Your task to perform on an android device: Add apple airpods pro to the cart on newegg.com, then select checkout. Image 0: 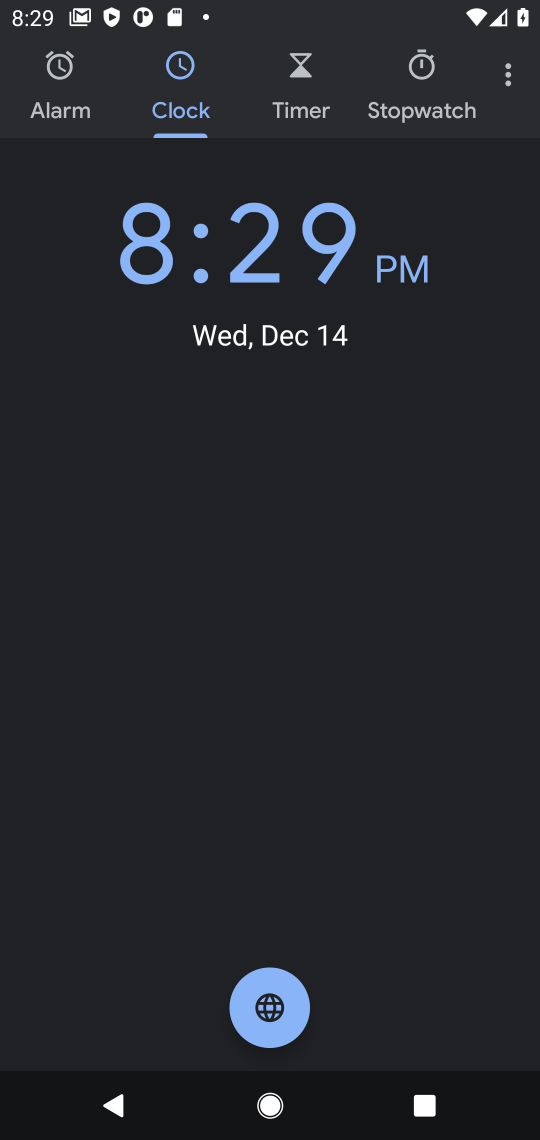
Step 0: press home button
Your task to perform on an android device: Add apple airpods pro to the cart on newegg.com, then select checkout. Image 1: 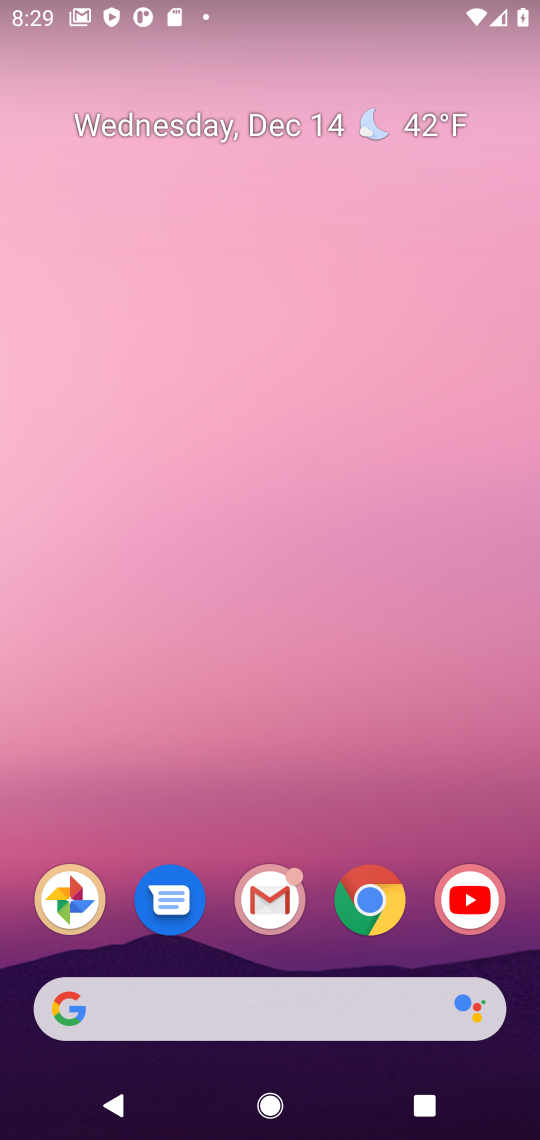
Step 1: click (377, 912)
Your task to perform on an android device: Add apple airpods pro to the cart on newegg.com, then select checkout. Image 2: 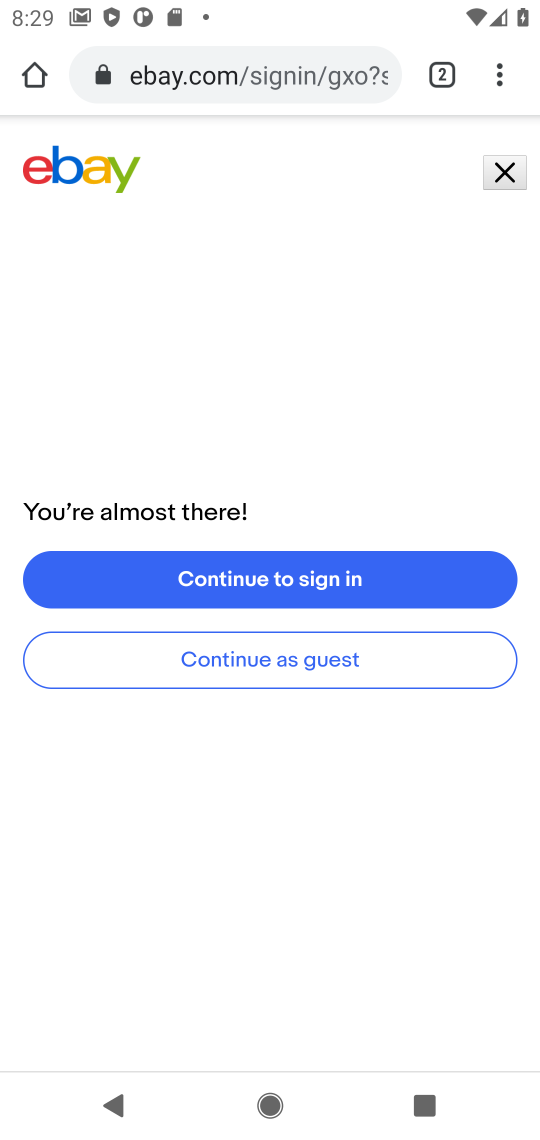
Step 2: click (310, 76)
Your task to perform on an android device: Add apple airpods pro to the cart on newegg.com, then select checkout. Image 3: 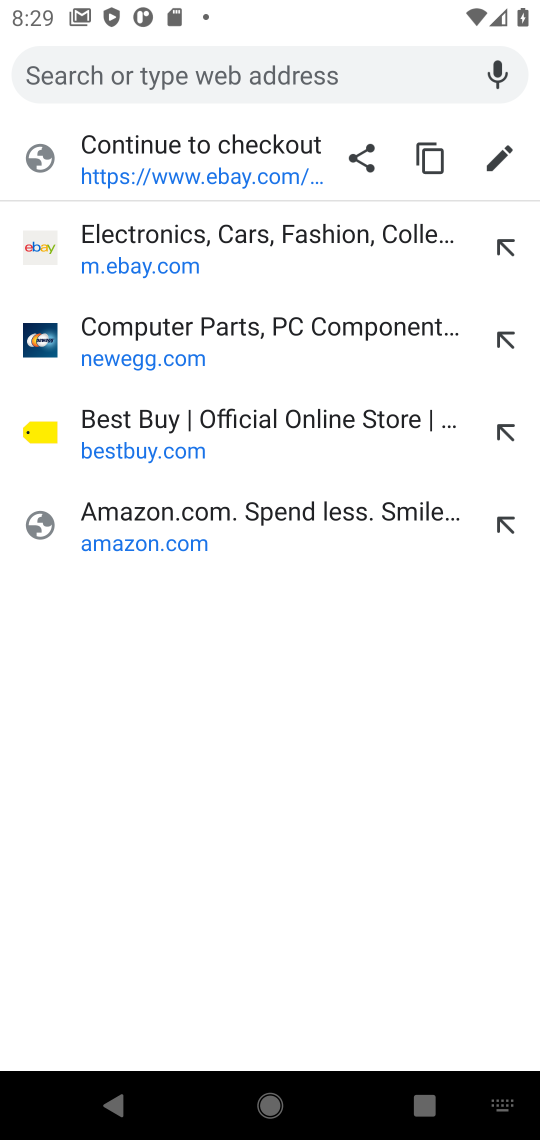
Step 3: click (129, 354)
Your task to perform on an android device: Add apple airpods pro to the cart on newegg.com, then select checkout. Image 4: 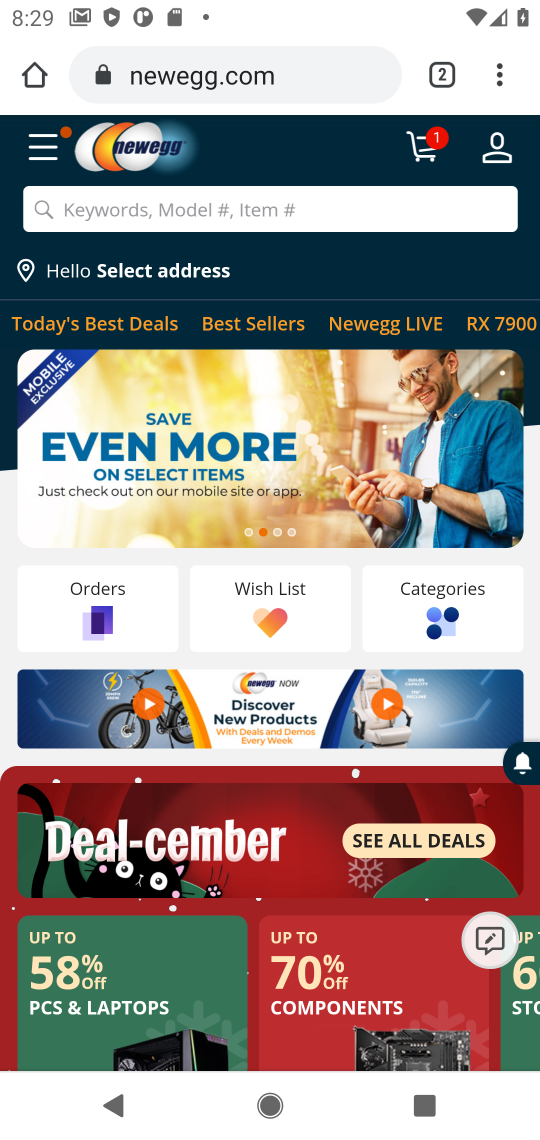
Step 4: click (348, 214)
Your task to perform on an android device: Add apple airpods pro to the cart on newegg.com, then select checkout. Image 5: 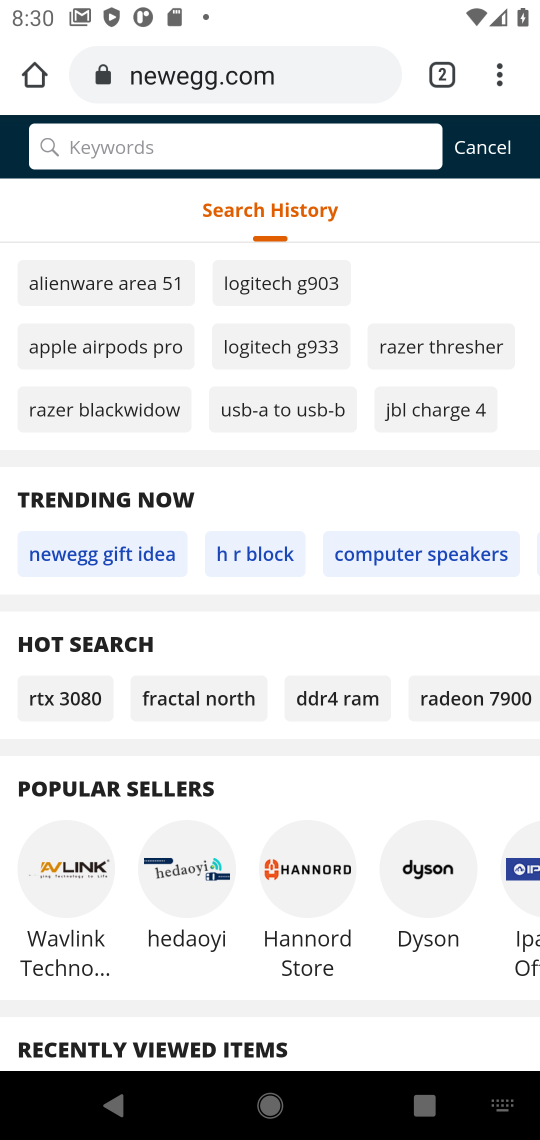
Step 5: type "apple airpod pro"
Your task to perform on an android device: Add apple airpods pro to the cart on newegg.com, then select checkout. Image 6: 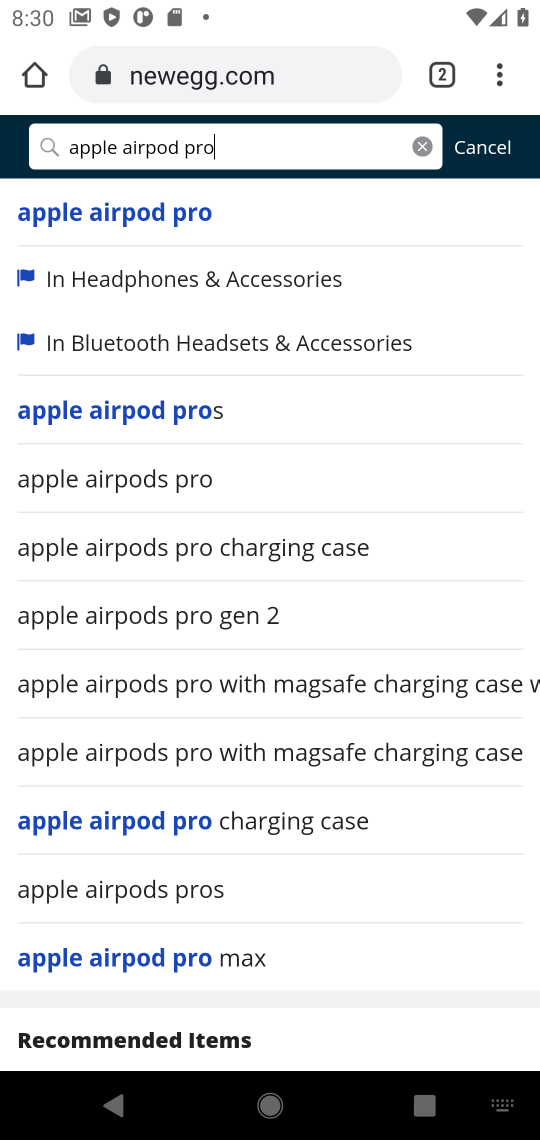
Step 6: click (104, 215)
Your task to perform on an android device: Add apple airpods pro to the cart on newegg.com, then select checkout. Image 7: 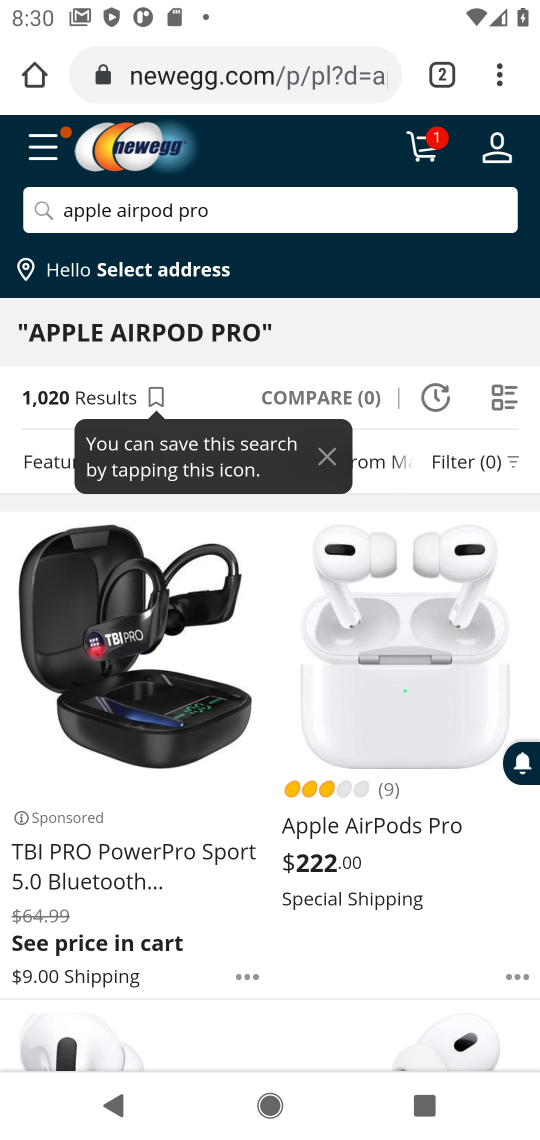
Step 7: click (371, 701)
Your task to perform on an android device: Add apple airpods pro to the cart on newegg.com, then select checkout. Image 8: 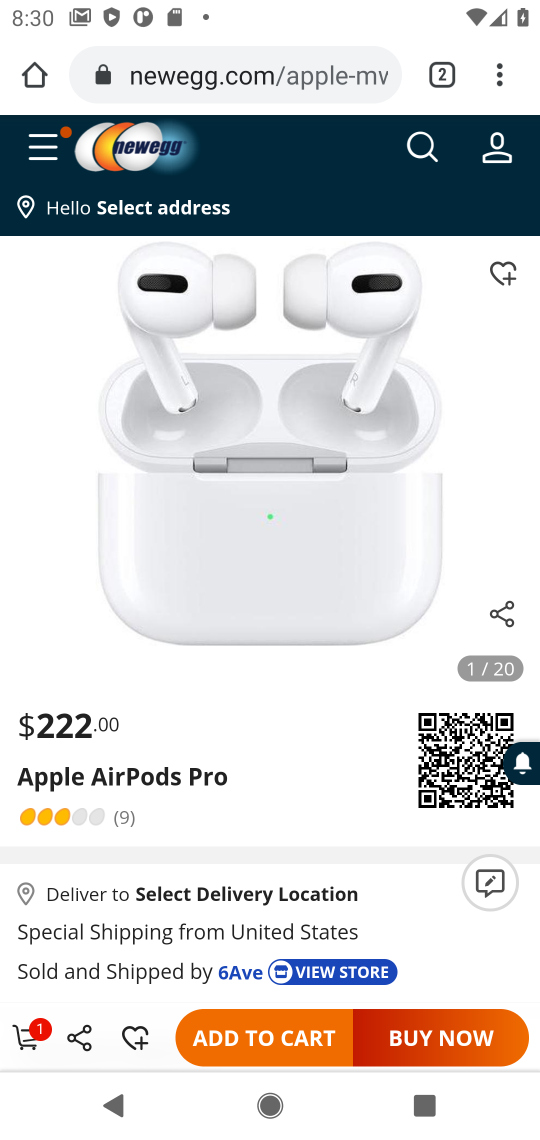
Step 8: click (274, 1048)
Your task to perform on an android device: Add apple airpods pro to the cart on newegg.com, then select checkout. Image 9: 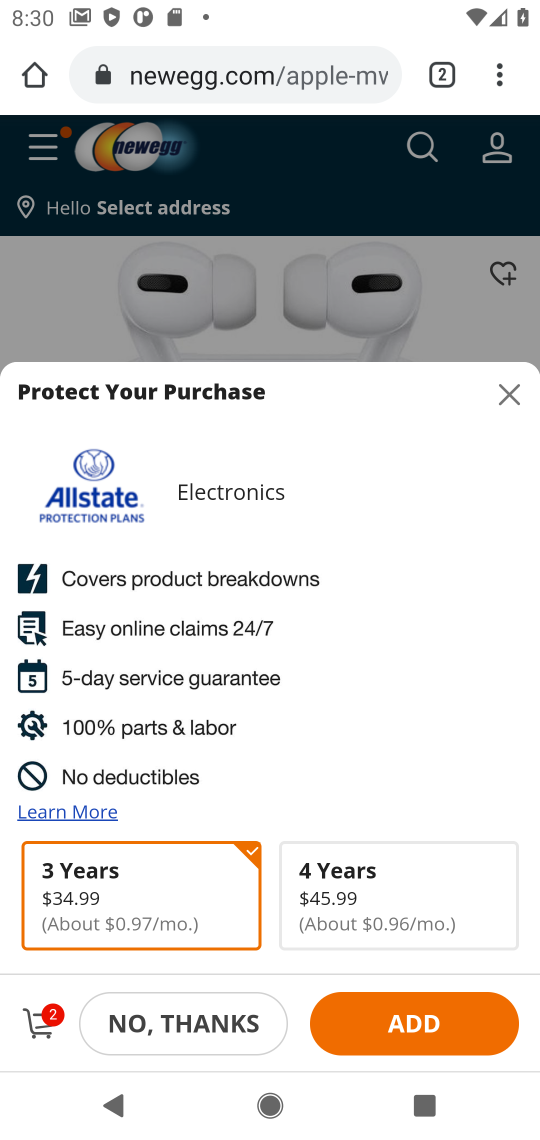
Step 9: drag from (438, 752) to (475, 506)
Your task to perform on an android device: Add apple airpods pro to the cart on newegg.com, then select checkout. Image 10: 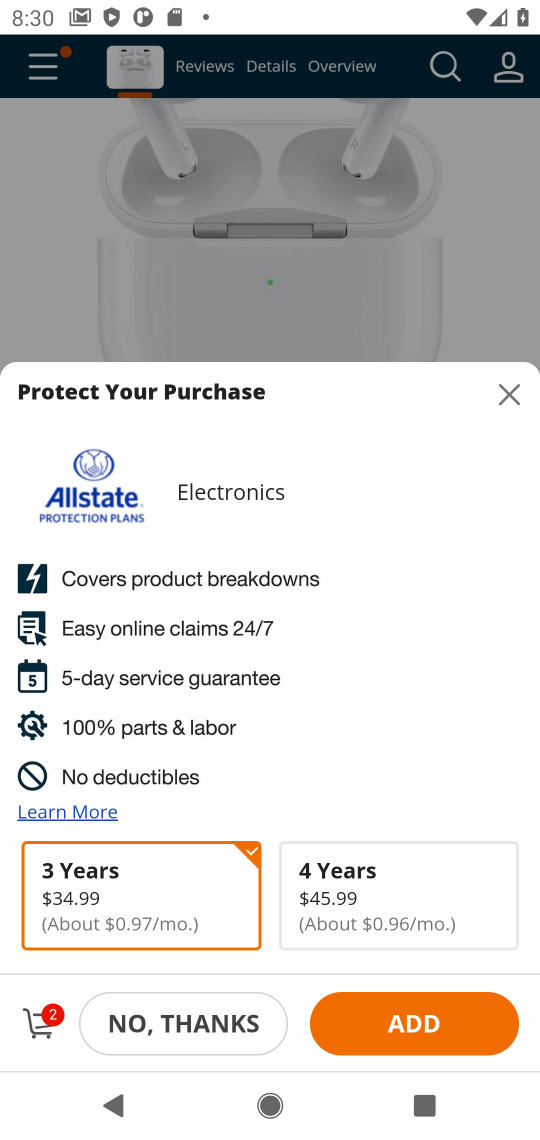
Step 10: drag from (357, 772) to (380, 405)
Your task to perform on an android device: Add apple airpods pro to the cart on newegg.com, then select checkout. Image 11: 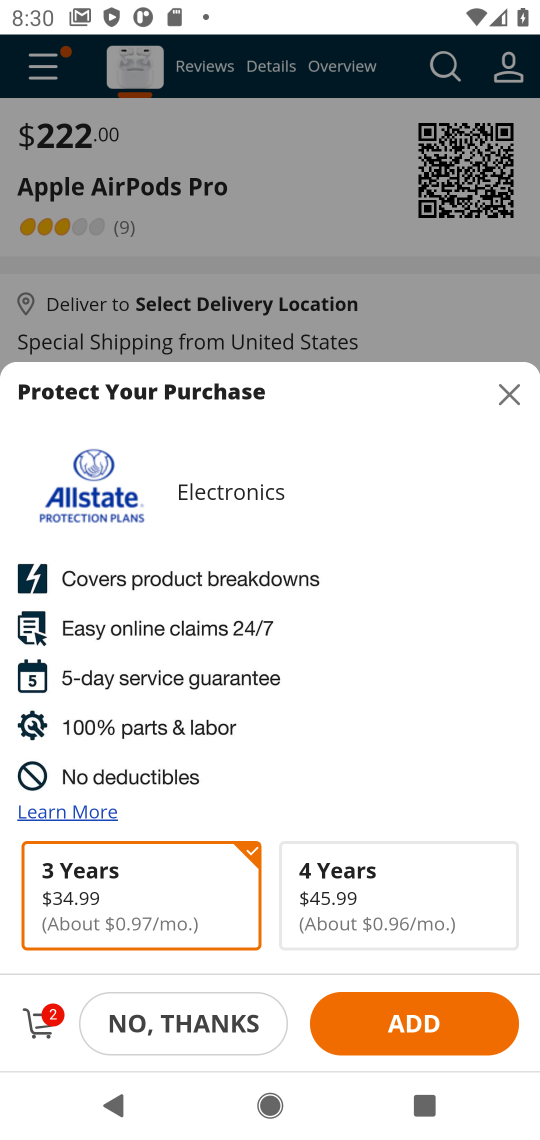
Step 11: click (406, 1019)
Your task to perform on an android device: Add apple airpods pro to the cart on newegg.com, then select checkout. Image 12: 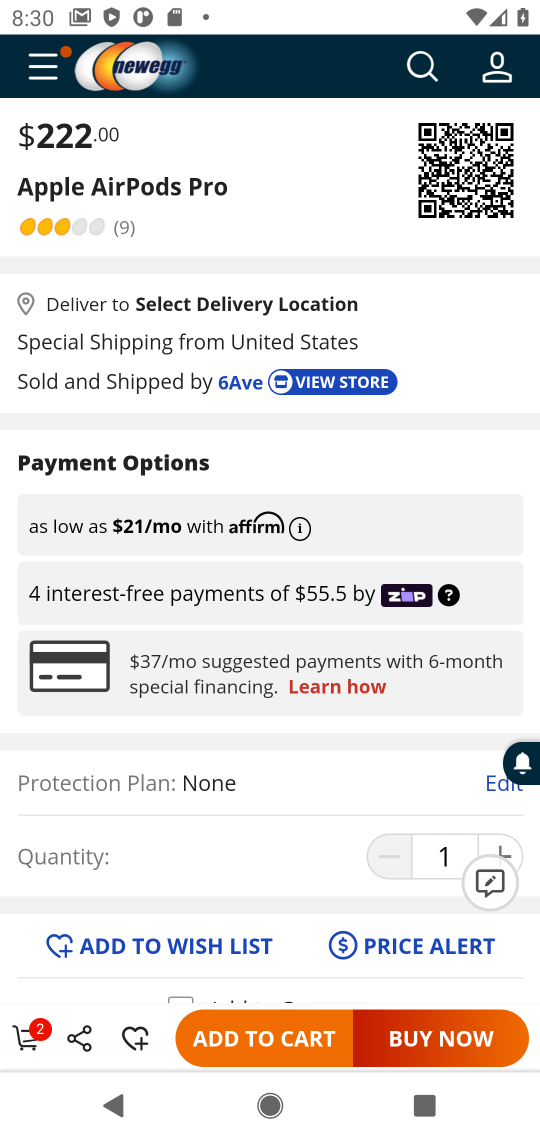
Step 12: click (36, 1044)
Your task to perform on an android device: Add apple airpods pro to the cart on newegg.com, then select checkout. Image 13: 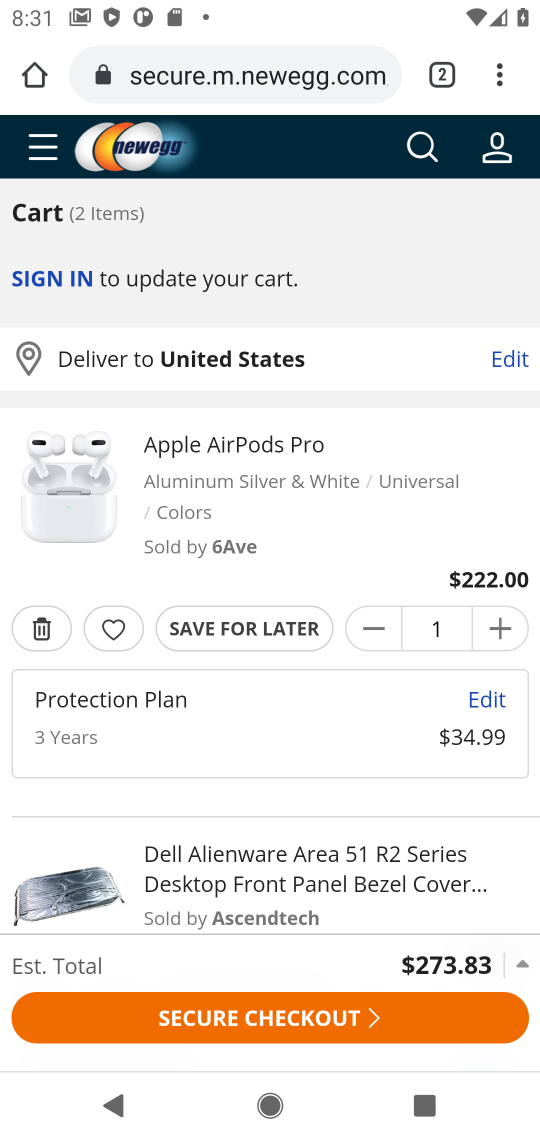
Step 13: click (319, 1025)
Your task to perform on an android device: Add apple airpods pro to the cart on newegg.com, then select checkout. Image 14: 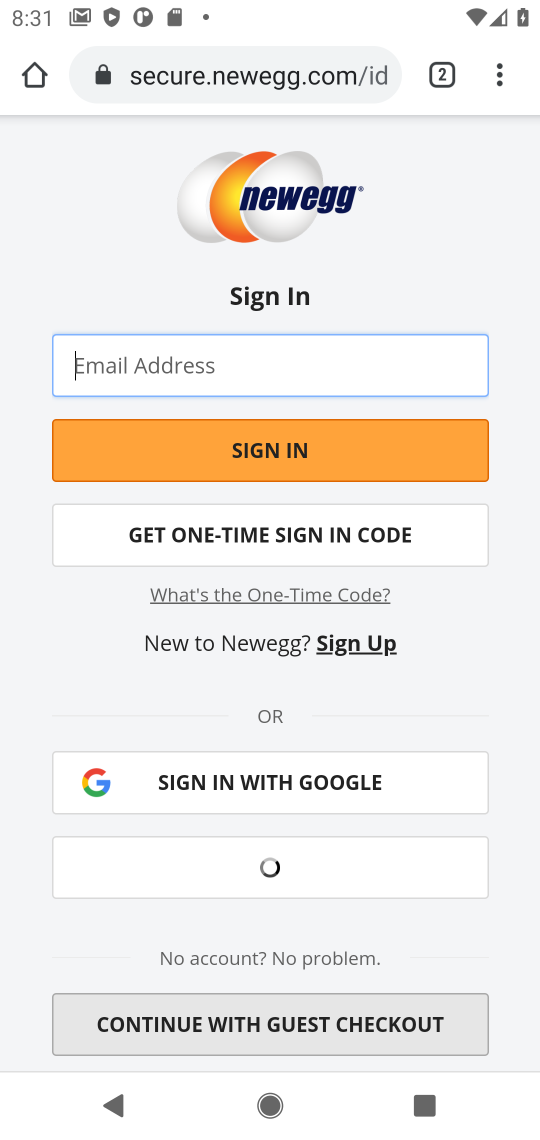
Step 14: task complete